Your task to perform on an android device: Go to display settings Image 0: 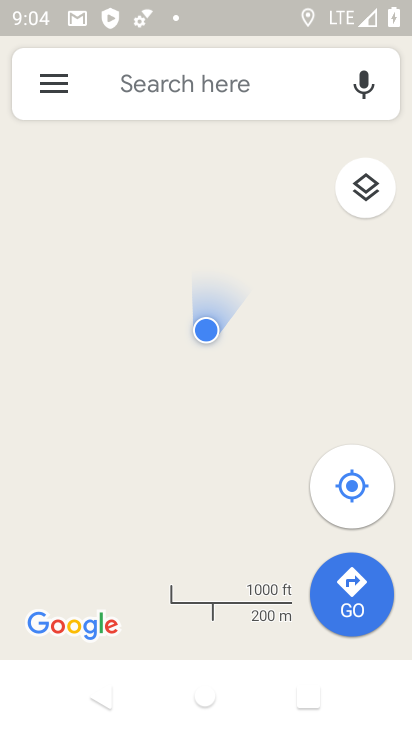
Step 0: press back button
Your task to perform on an android device: Go to display settings Image 1: 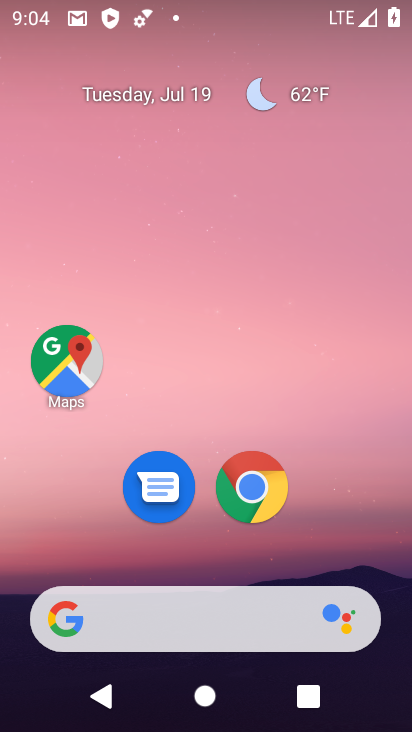
Step 1: drag from (190, 574) to (221, 13)
Your task to perform on an android device: Go to display settings Image 2: 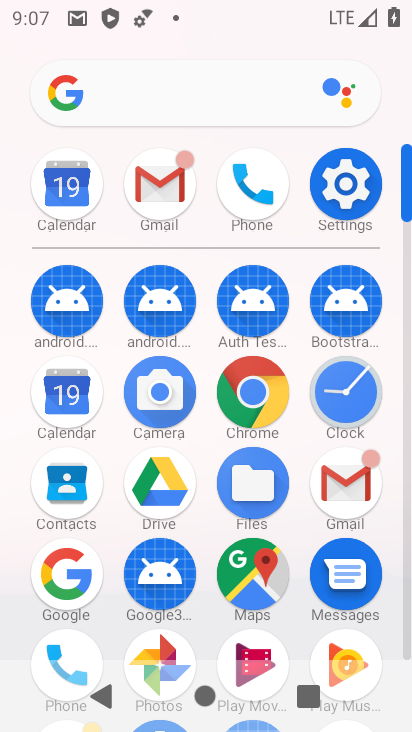
Step 2: click (360, 189)
Your task to perform on an android device: Go to display settings Image 3: 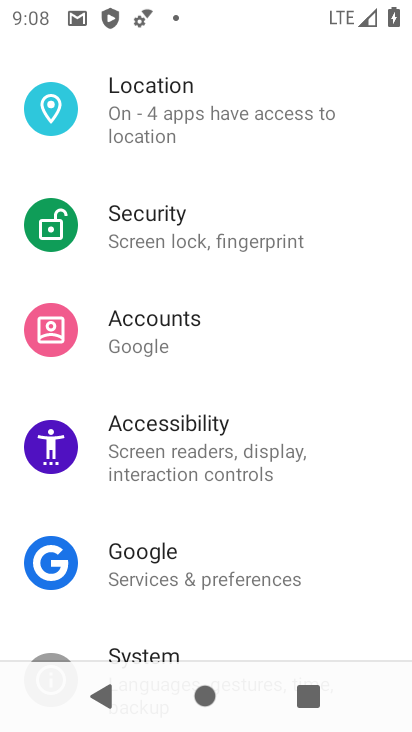
Step 3: drag from (165, 511) to (246, 152)
Your task to perform on an android device: Go to display settings Image 4: 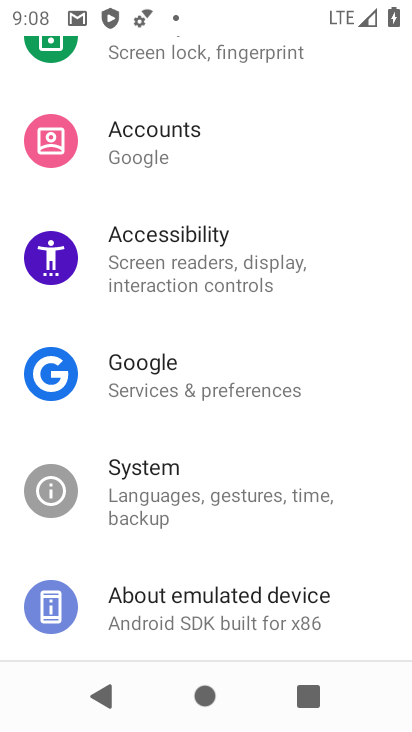
Step 4: drag from (224, 180) to (151, 674)
Your task to perform on an android device: Go to display settings Image 5: 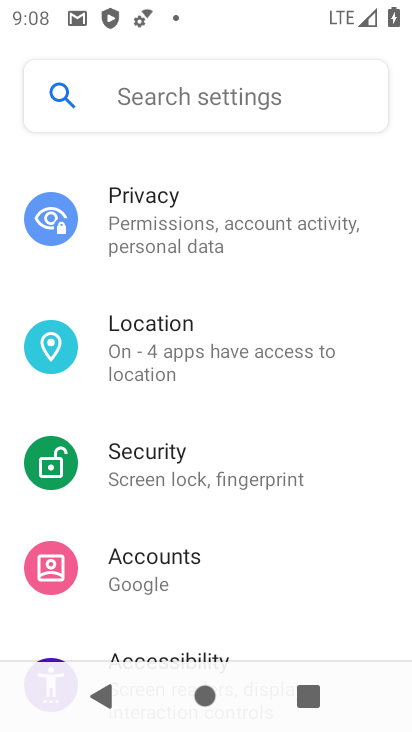
Step 5: drag from (194, 275) to (160, 666)
Your task to perform on an android device: Go to display settings Image 6: 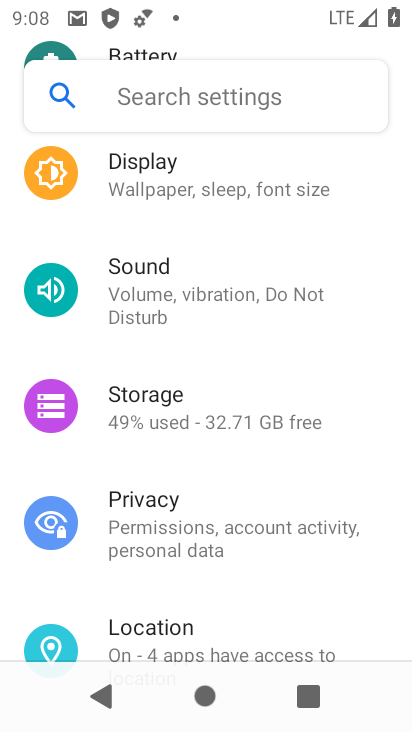
Step 6: click (162, 183)
Your task to perform on an android device: Go to display settings Image 7: 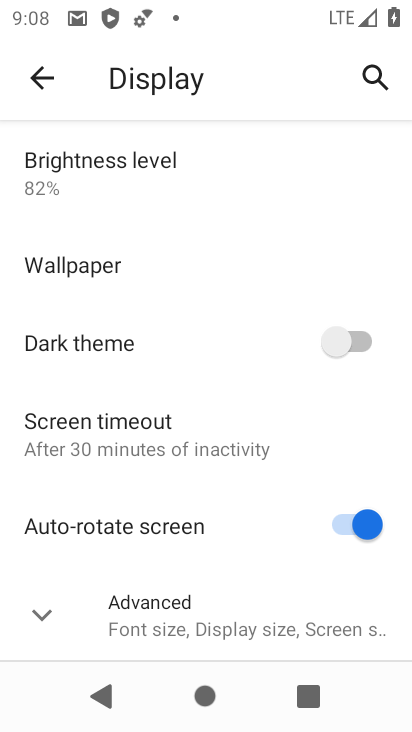
Step 7: task complete